Your task to perform on an android device: Clear the shopping cart on newegg. Add "dell alienware" to the cart on newegg, then select checkout. Image 0: 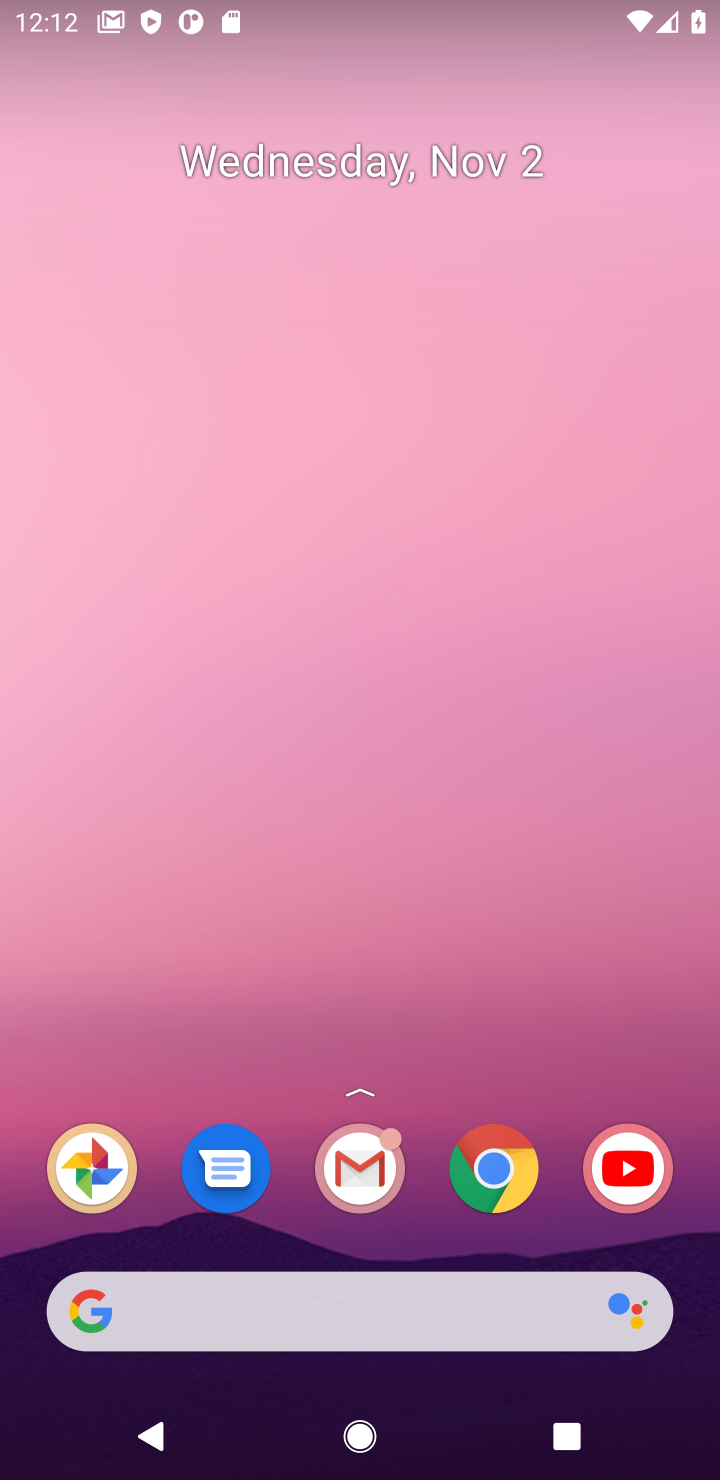
Step 0: click (496, 1162)
Your task to perform on an android device: Clear the shopping cart on newegg. Add "dell alienware" to the cart on newegg, then select checkout. Image 1: 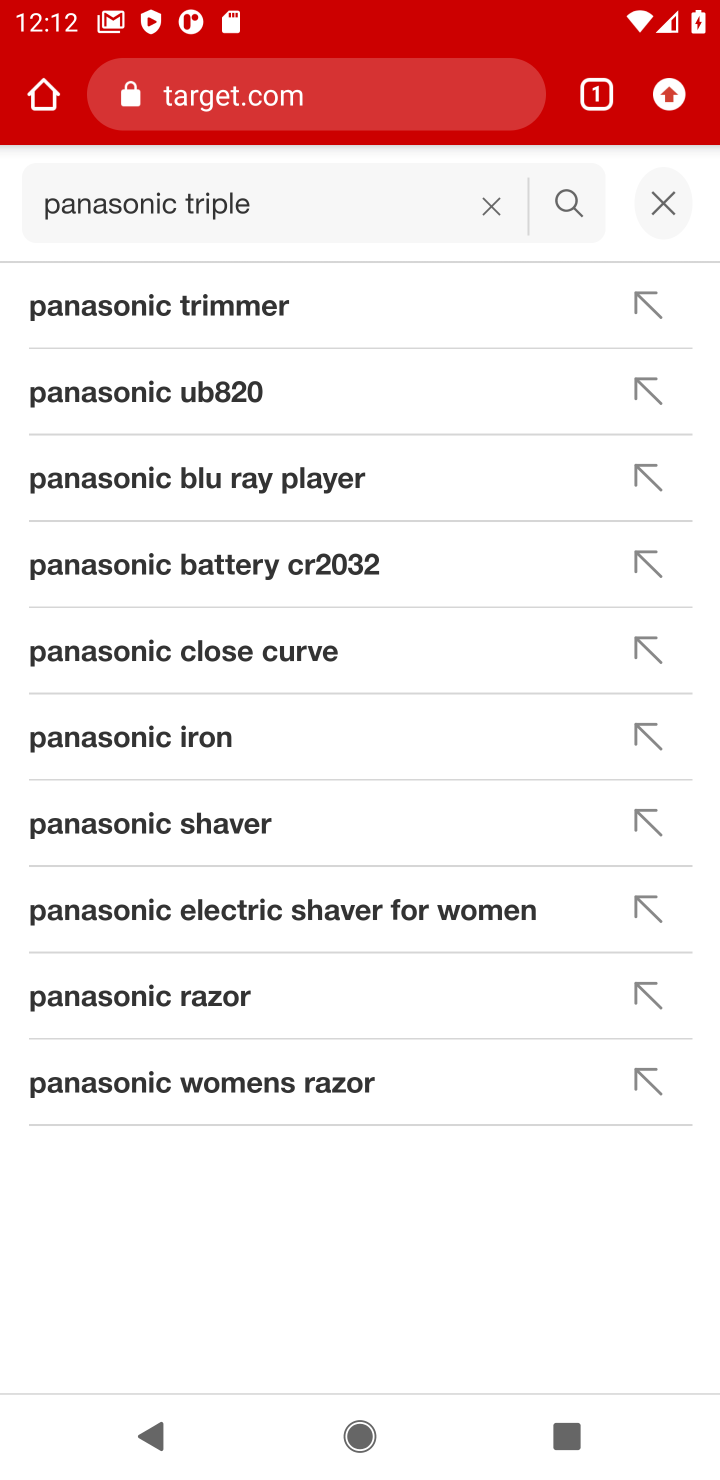
Step 1: click (364, 101)
Your task to perform on an android device: Clear the shopping cart on newegg. Add "dell alienware" to the cart on newegg, then select checkout. Image 2: 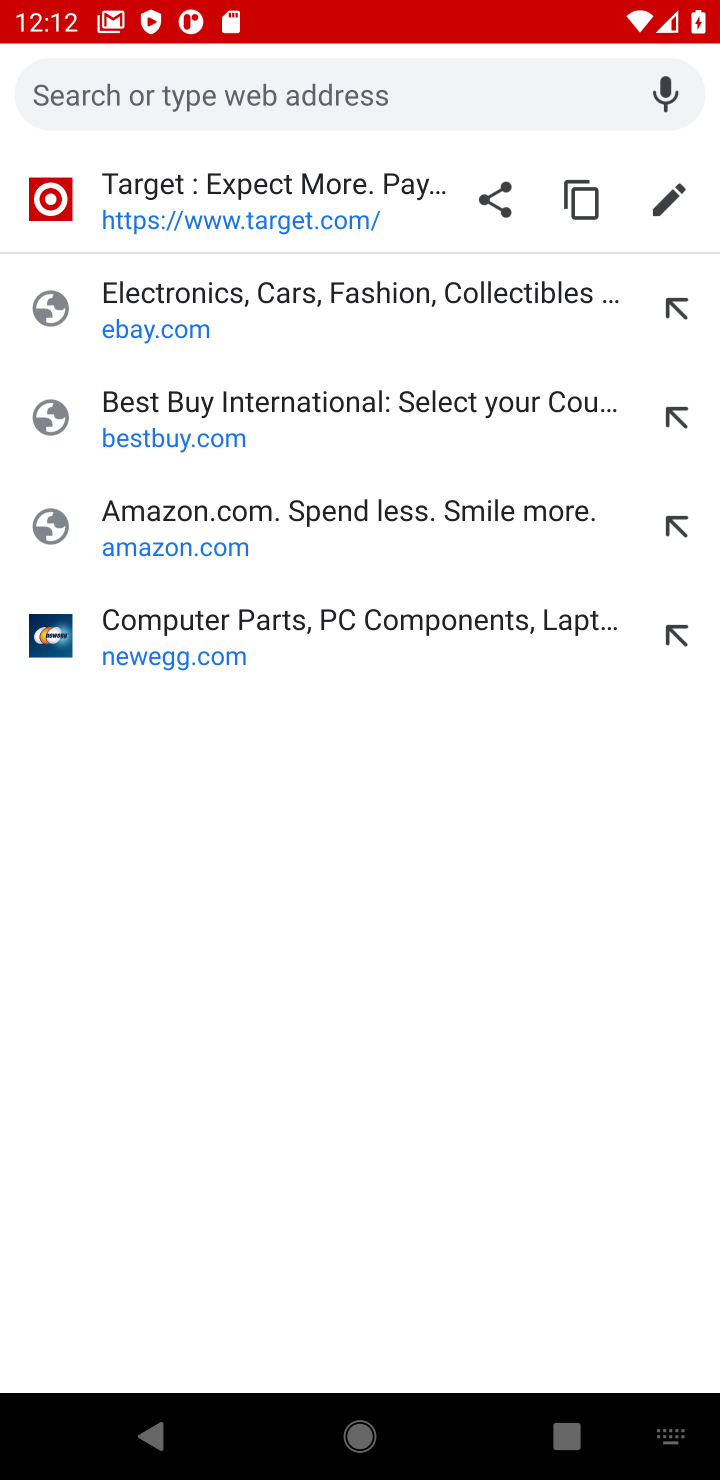
Step 2: press enter
Your task to perform on an android device: Clear the shopping cart on newegg. Add "dell alienware" to the cart on newegg, then select checkout. Image 3: 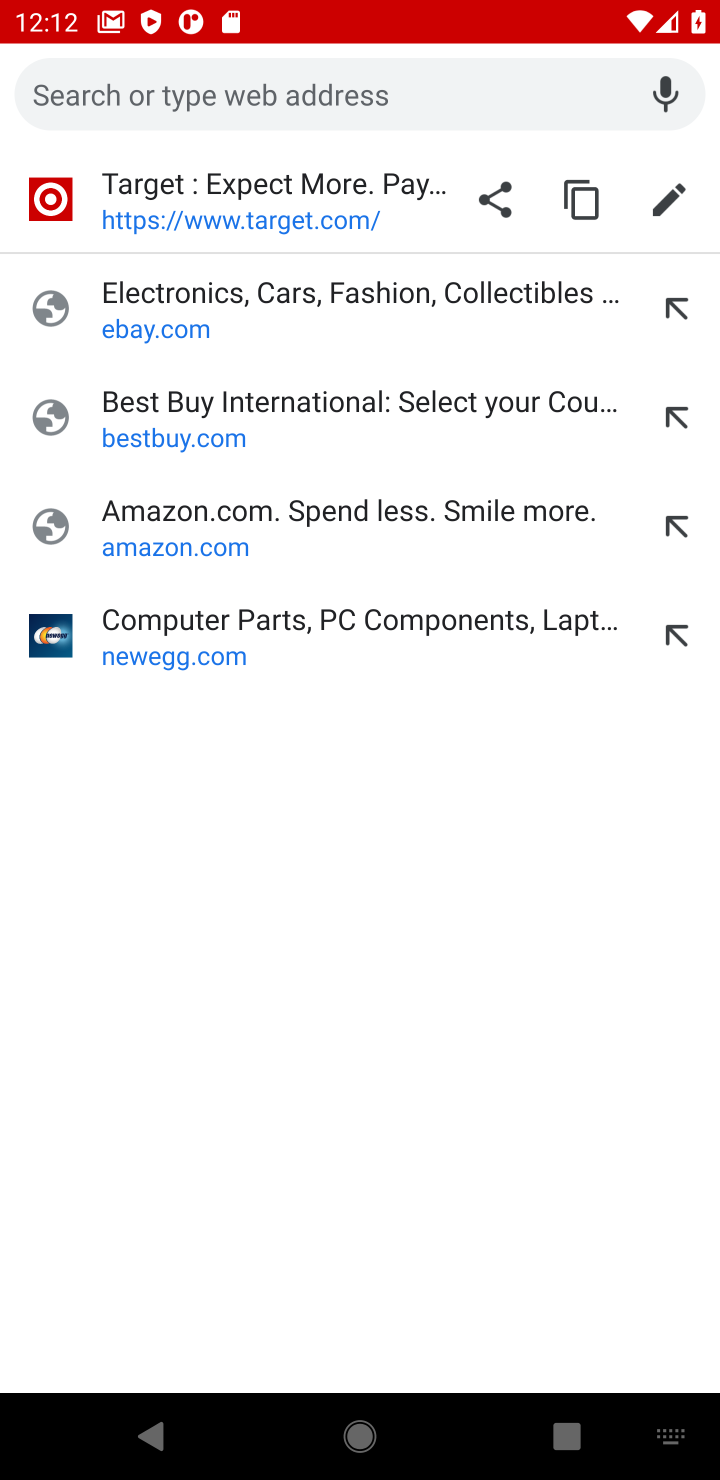
Step 3: type "newegg"
Your task to perform on an android device: Clear the shopping cart on newegg. Add "dell alienware" to the cart on newegg, then select checkout. Image 4: 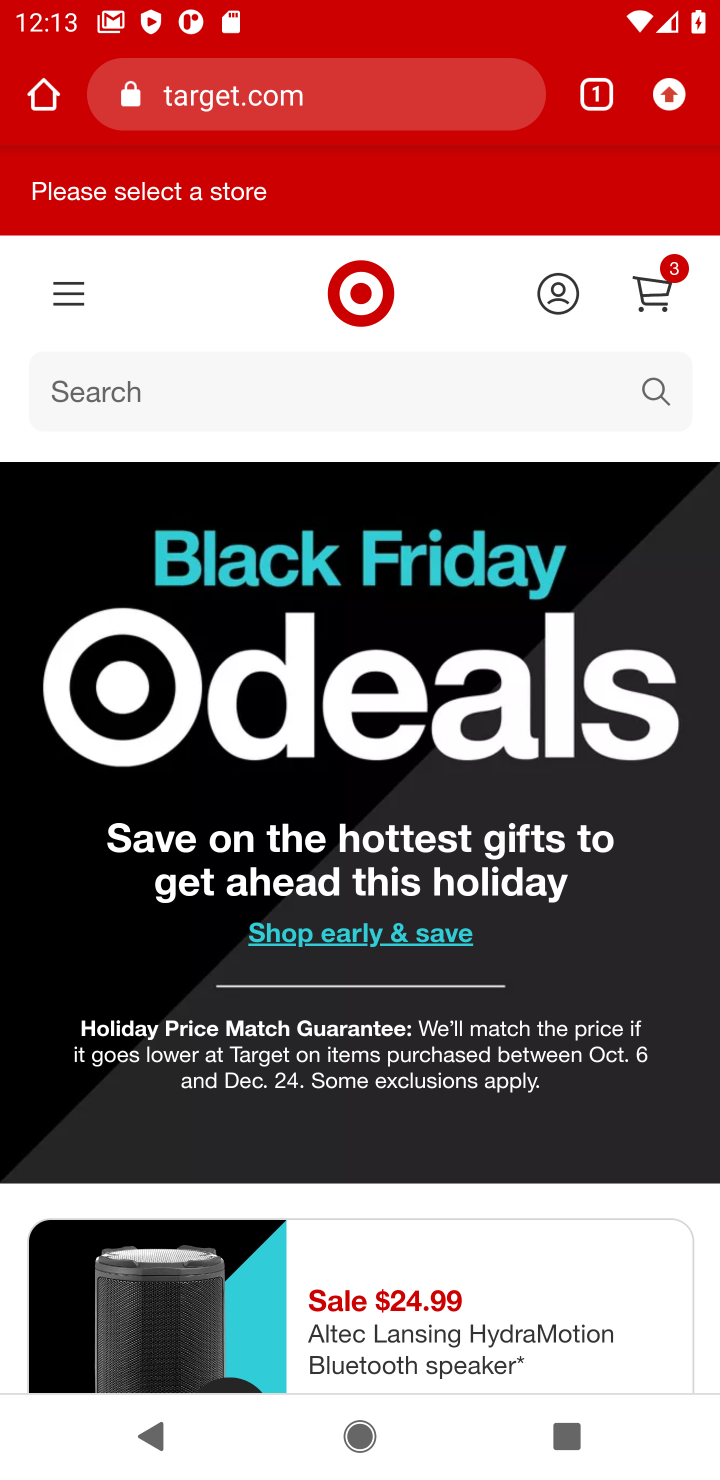
Step 4: click (372, 92)
Your task to perform on an android device: Clear the shopping cart on newegg. Add "dell alienware" to the cart on newegg, then select checkout. Image 5: 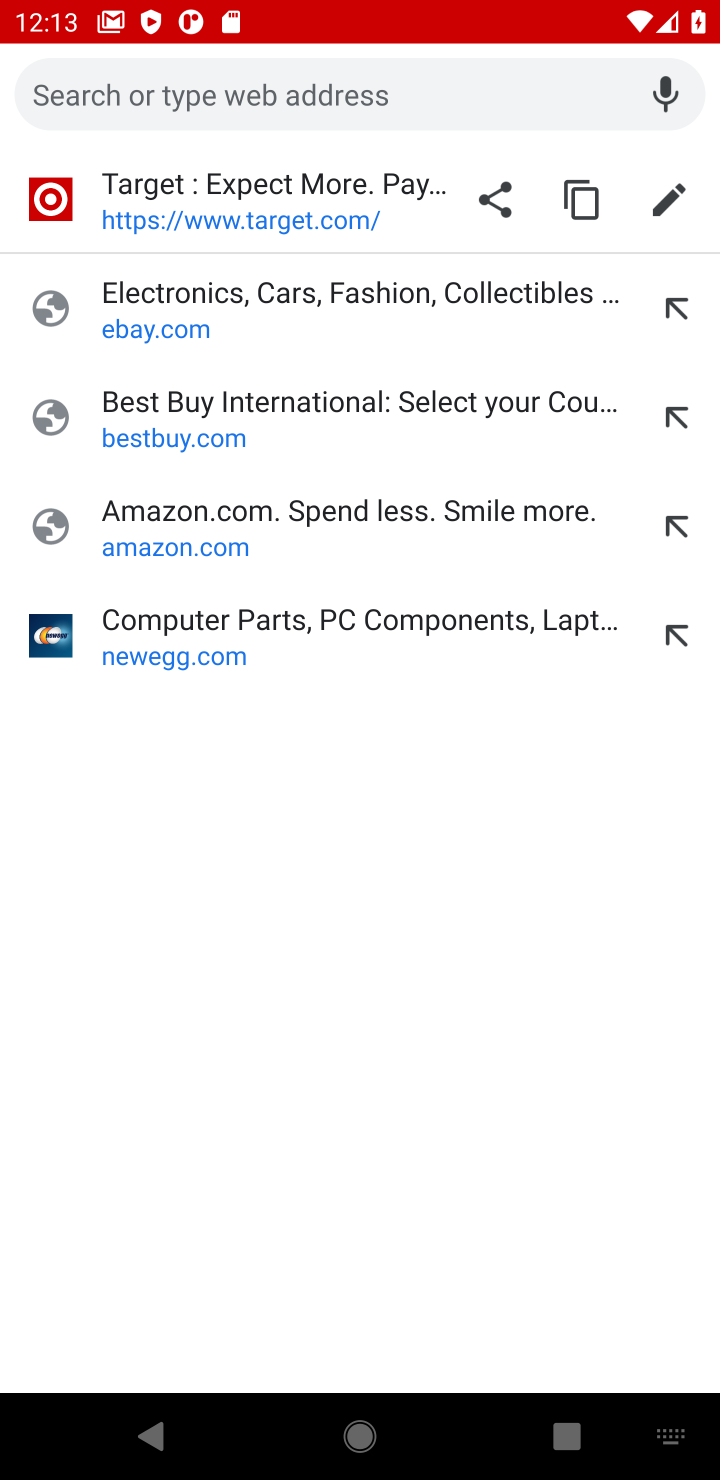
Step 5: press enter
Your task to perform on an android device: Clear the shopping cart on newegg. Add "dell alienware" to the cart on newegg, then select checkout. Image 6: 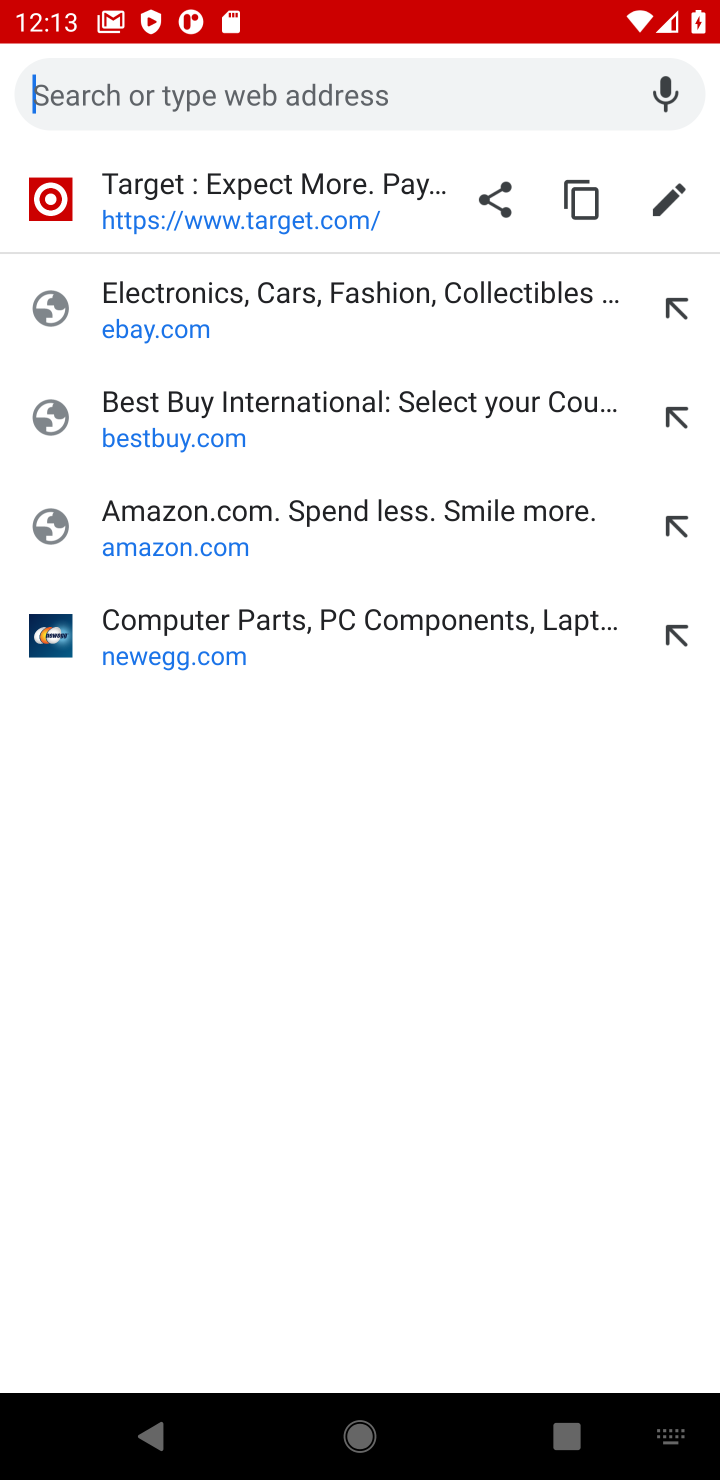
Step 6: type "newegg"
Your task to perform on an android device: Clear the shopping cart on newegg. Add "dell alienware" to the cart on newegg, then select checkout. Image 7: 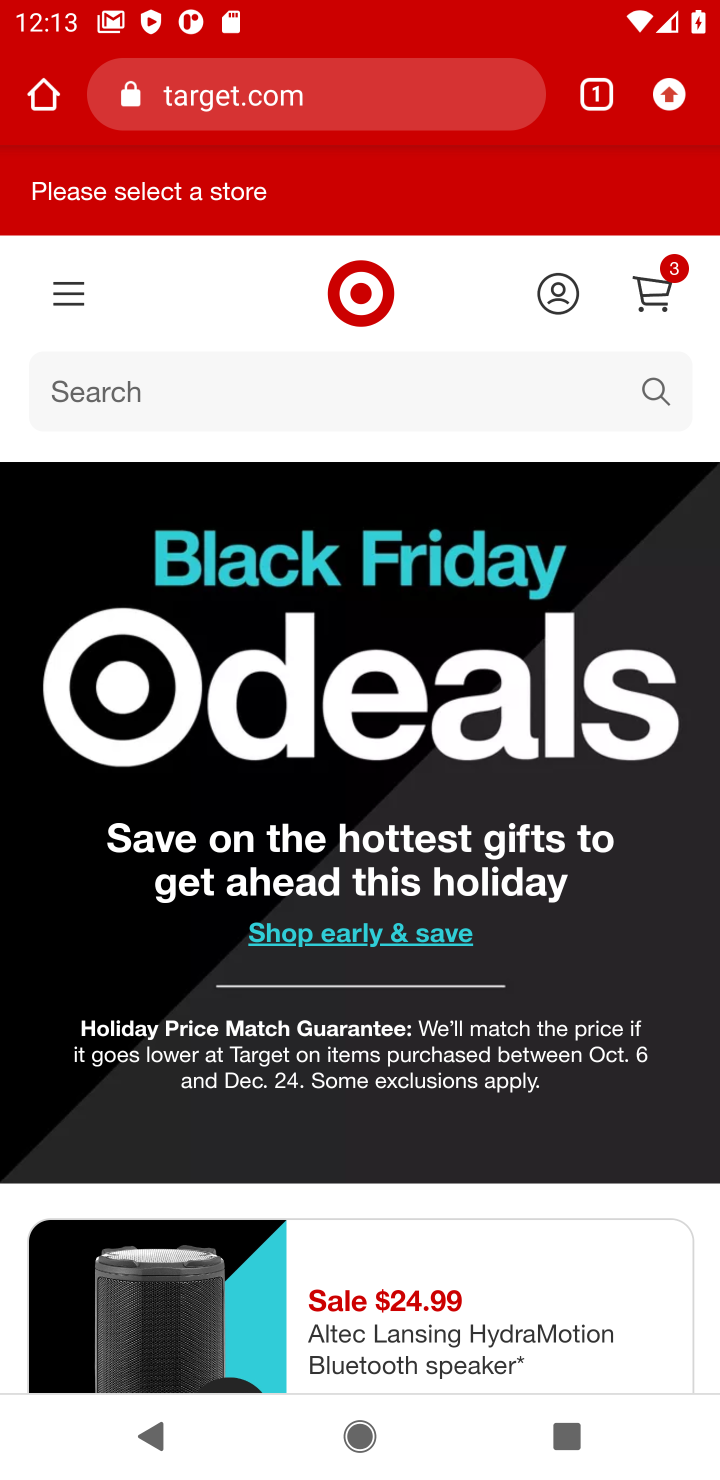
Step 7: click (38, 100)
Your task to perform on an android device: Clear the shopping cart on newegg. Add "dell alienware" to the cart on newegg, then select checkout. Image 8: 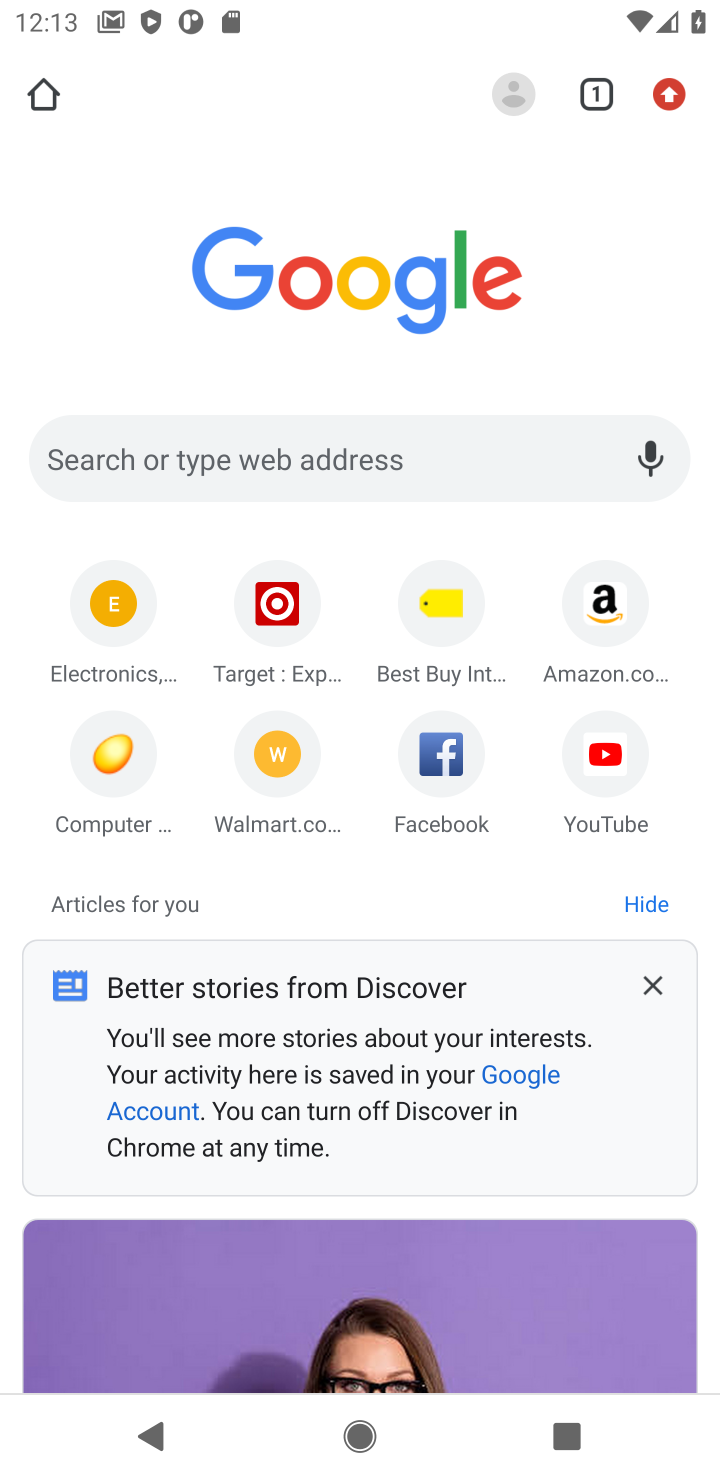
Step 8: click (377, 444)
Your task to perform on an android device: Clear the shopping cart on newegg. Add "dell alienware" to the cart on newegg, then select checkout. Image 9: 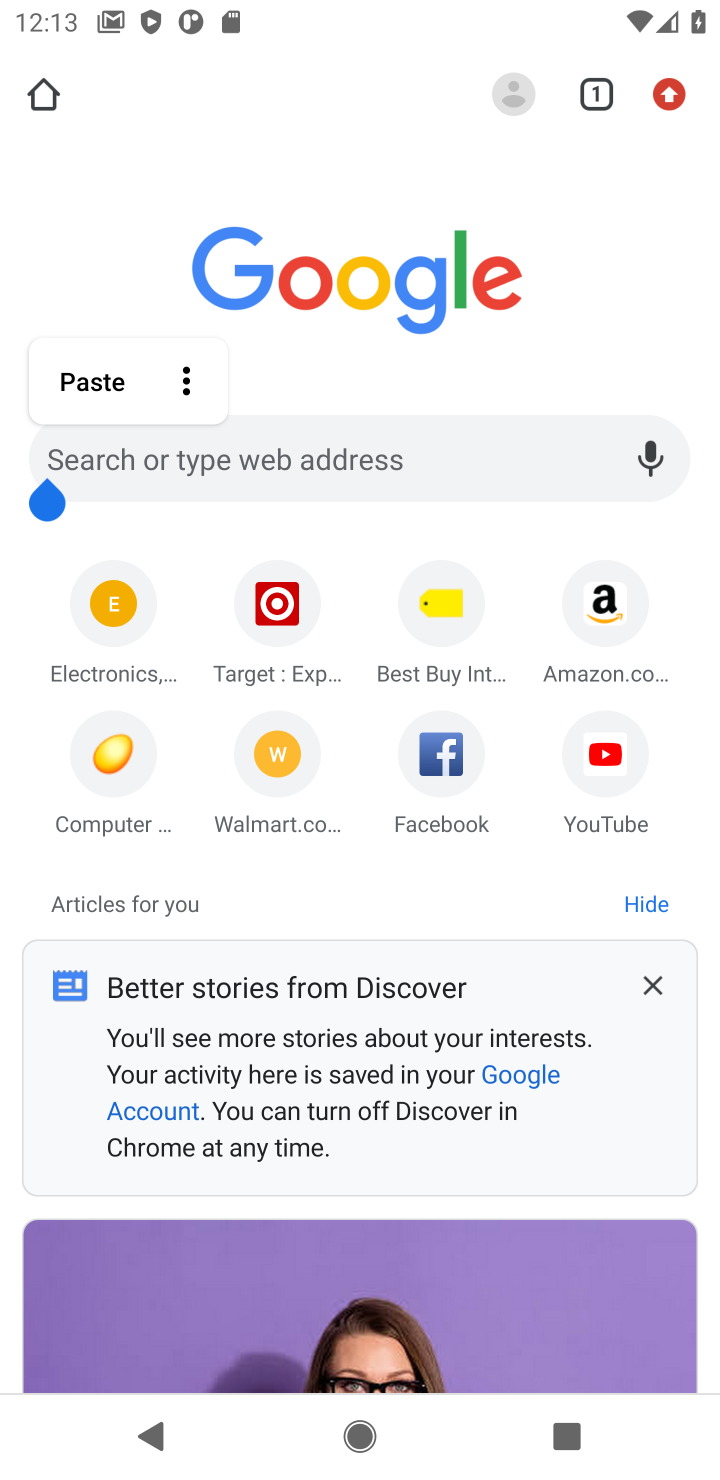
Step 9: click (443, 464)
Your task to perform on an android device: Clear the shopping cart on newegg. Add "dell alienware" to the cart on newegg, then select checkout. Image 10: 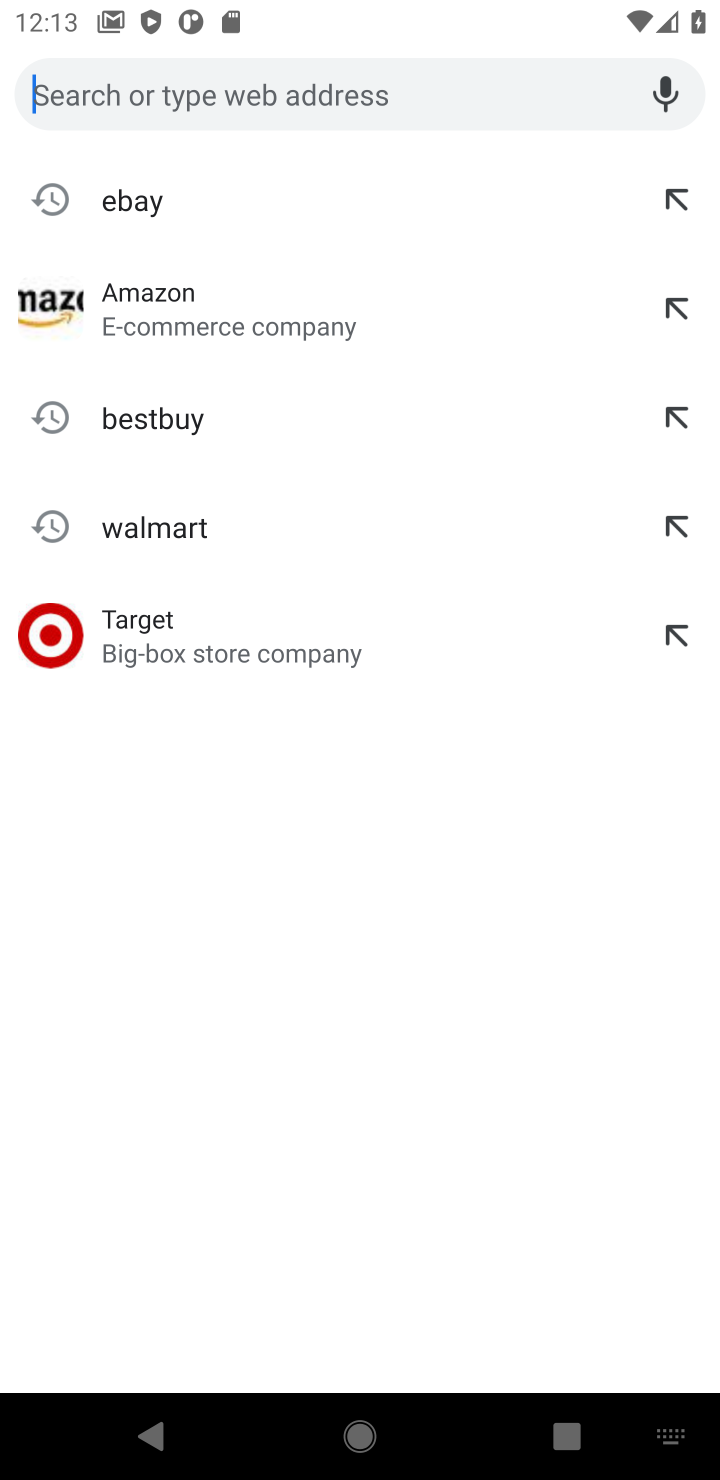
Step 10: type "newegg"
Your task to perform on an android device: Clear the shopping cart on newegg. Add "dell alienware" to the cart on newegg, then select checkout. Image 11: 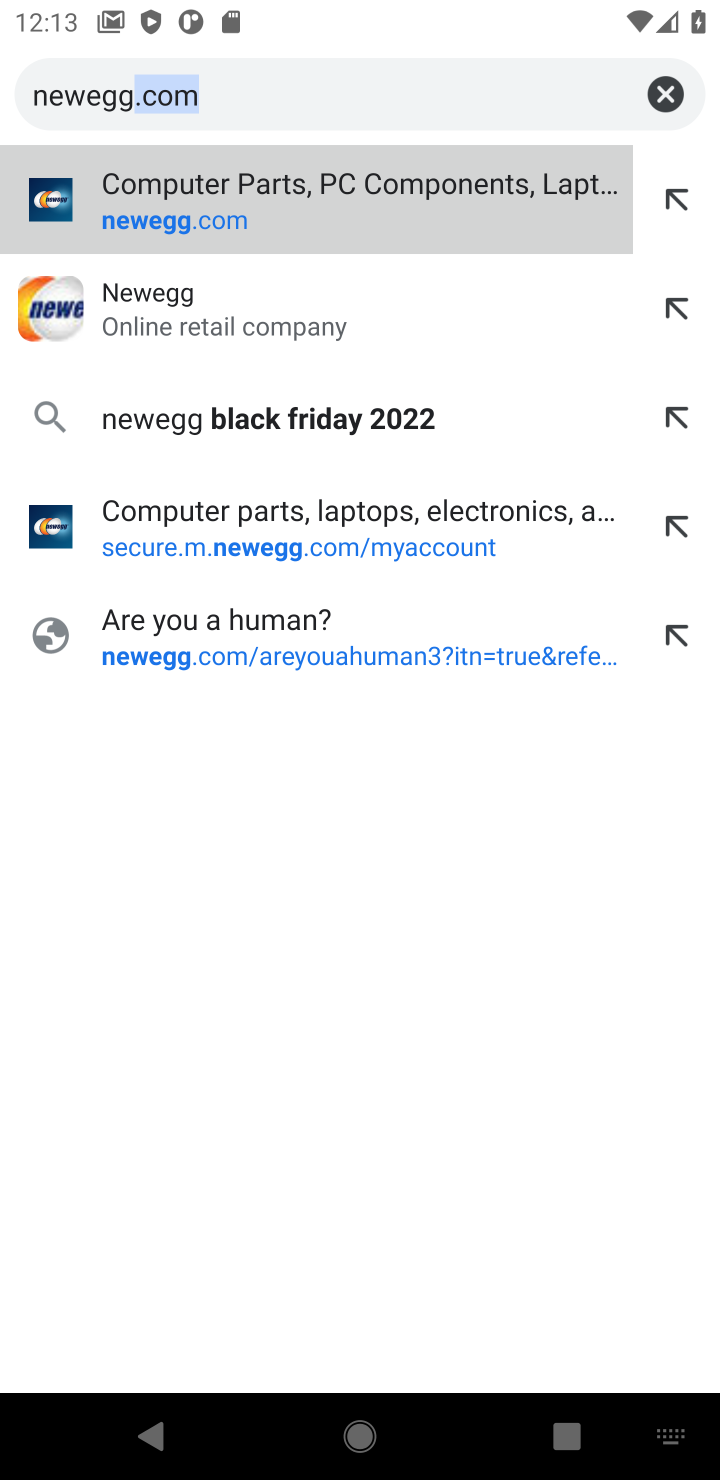
Step 11: press enter
Your task to perform on an android device: Clear the shopping cart on newegg. Add "dell alienware" to the cart on newegg, then select checkout. Image 12: 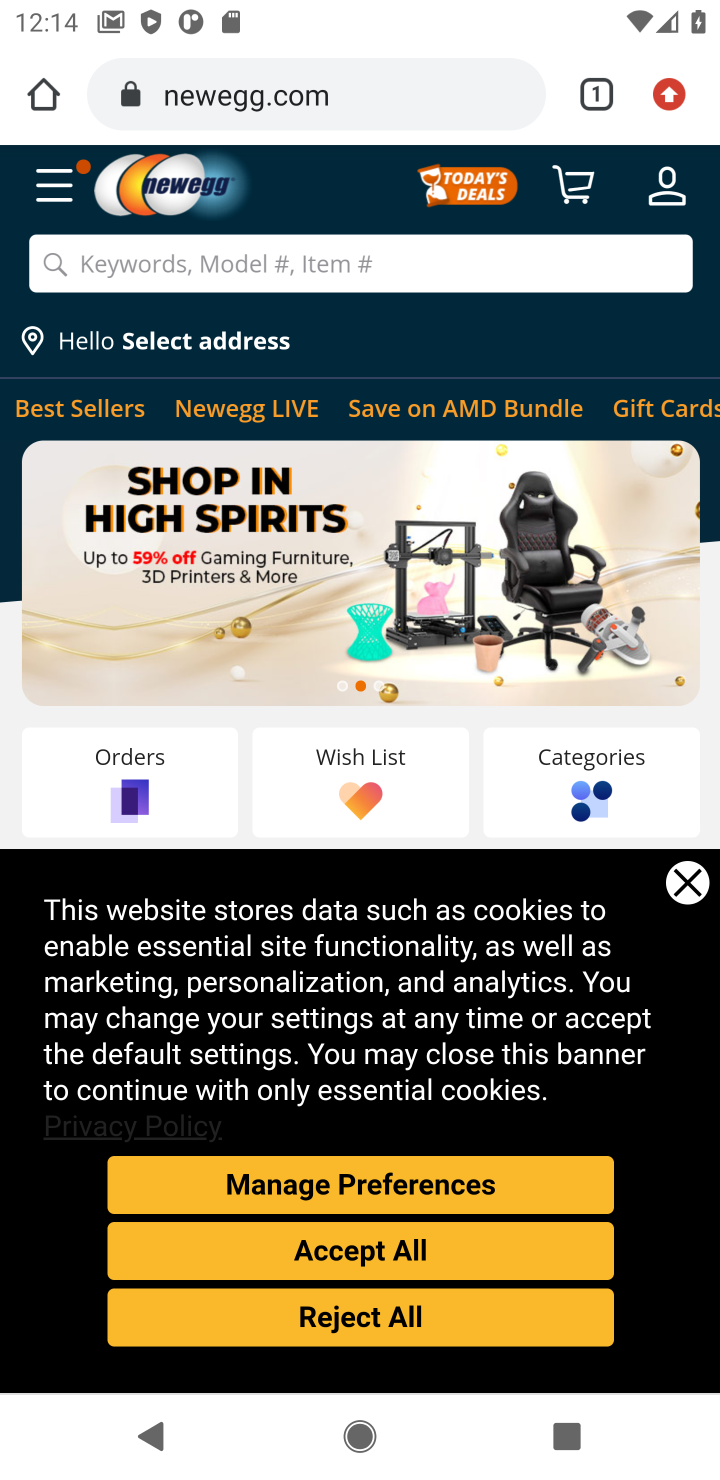
Step 12: click (339, 261)
Your task to perform on an android device: Clear the shopping cart on newegg. Add "dell alienware" to the cart on newegg, then select checkout. Image 13: 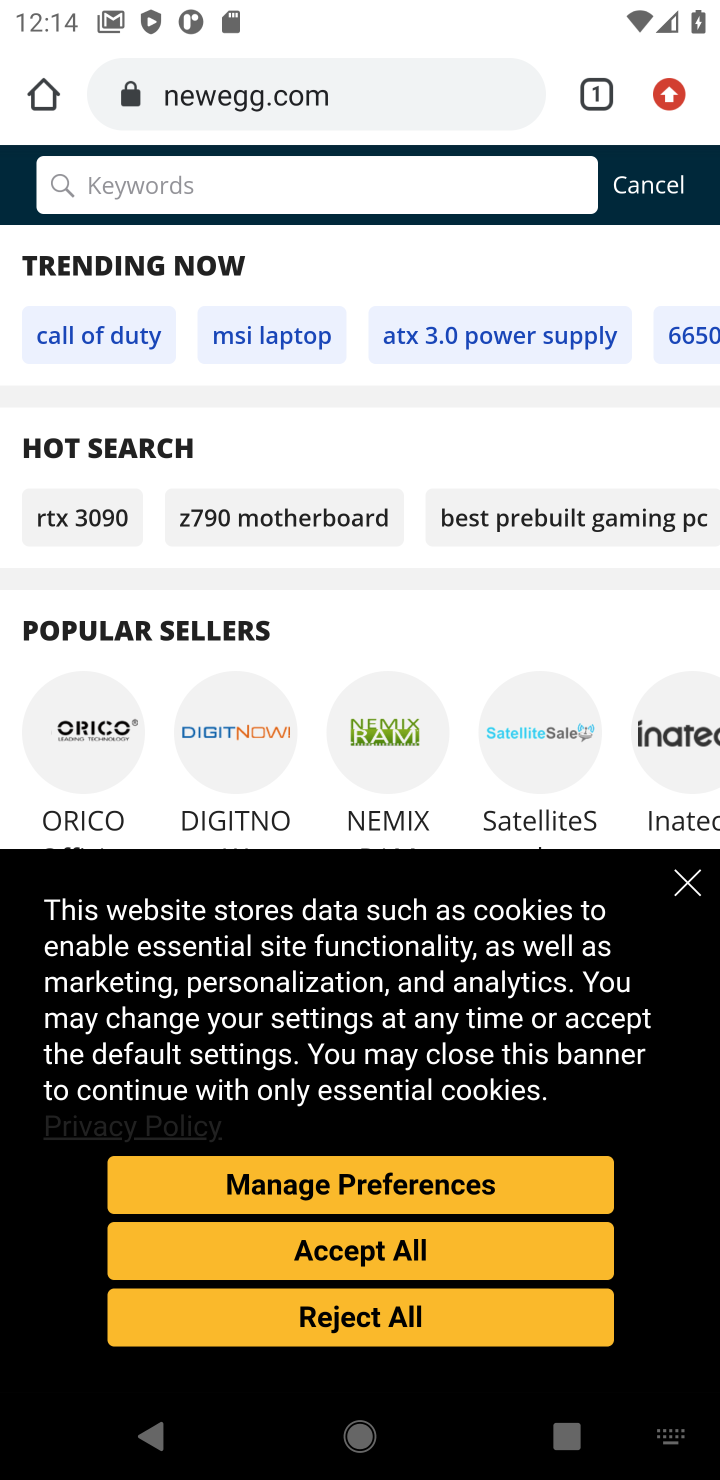
Step 13: type "dell alienware"
Your task to perform on an android device: Clear the shopping cart on newegg. Add "dell alienware" to the cart on newegg, then select checkout. Image 14: 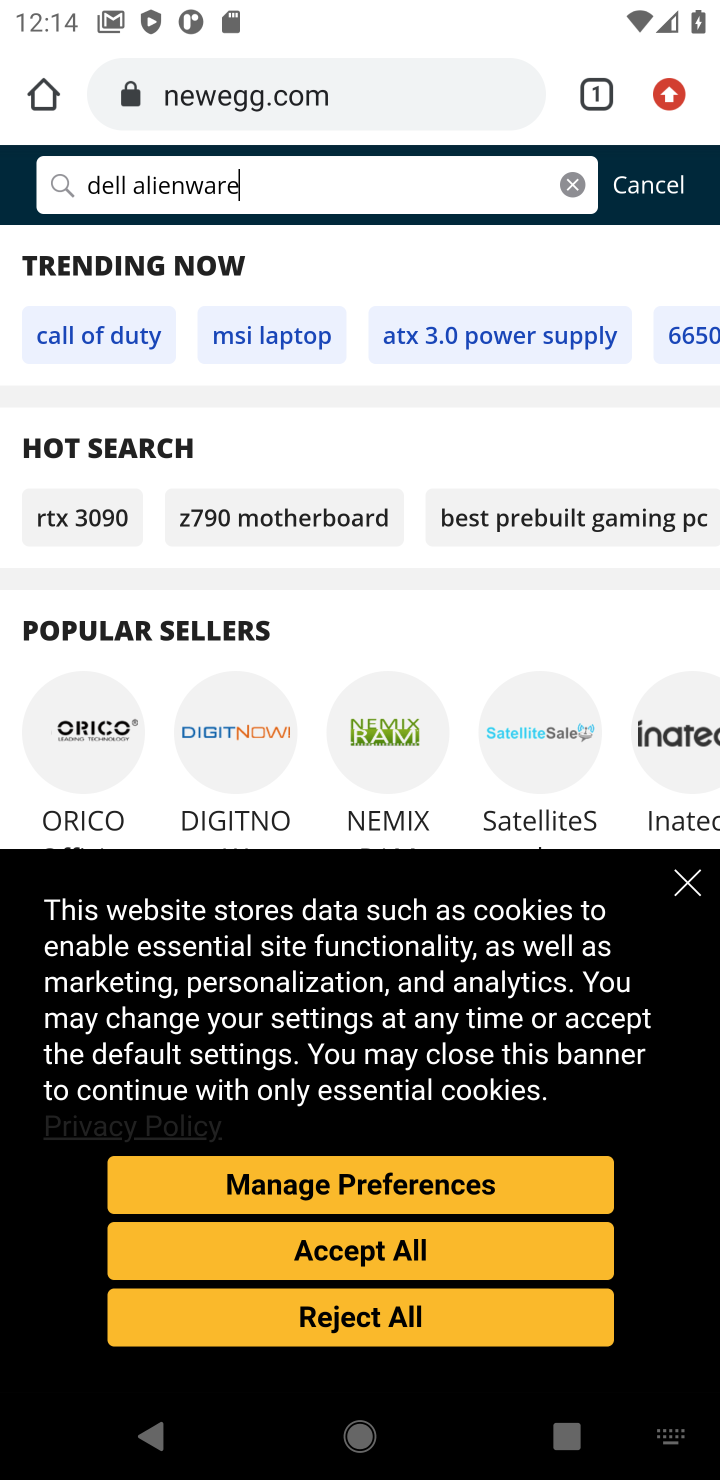
Step 14: press enter
Your task to perform on an android device: Clear the shopping cart on newegg. Add "dell alienware" to the cart on newegg, then select checkout. Image 15: 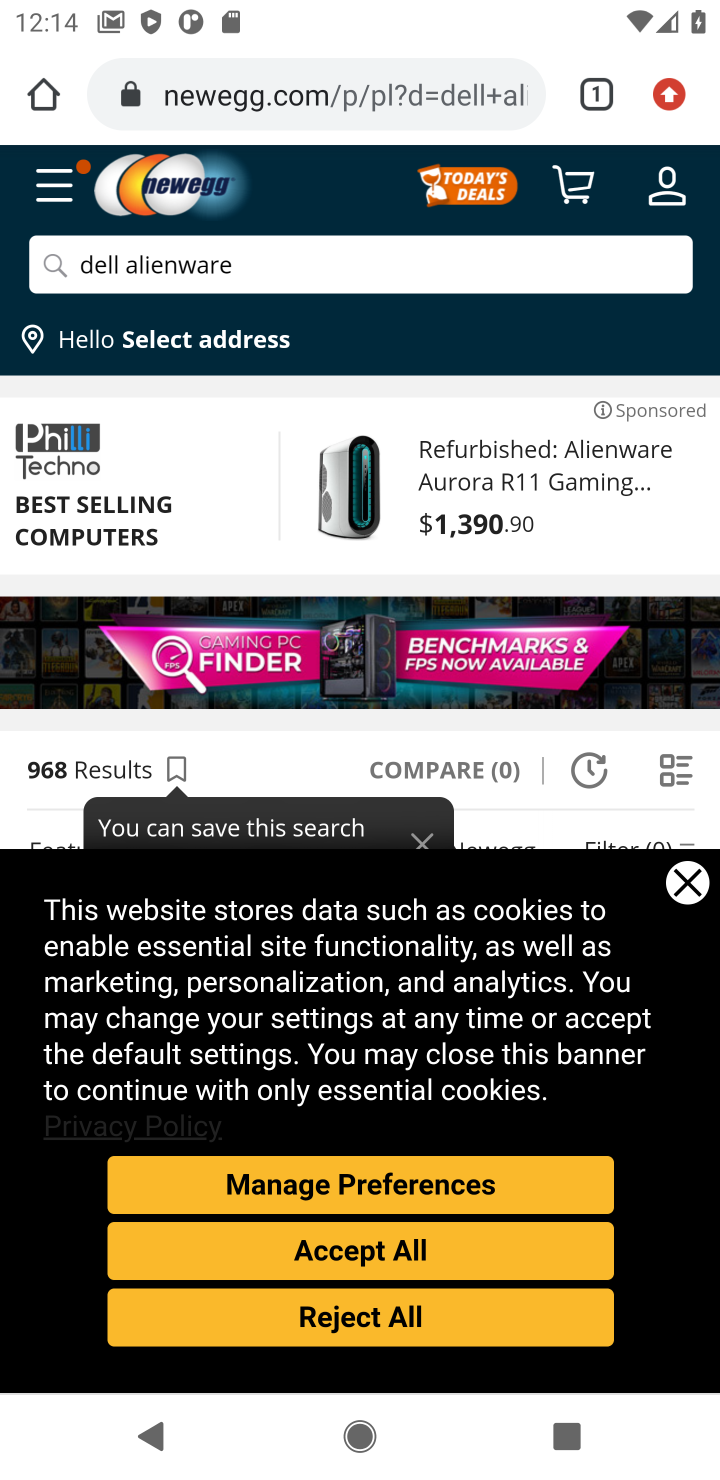
Step 15: click (407, 1235)
Your task to perform on an android device: Clear the shopping cart on newegg. Add "dell alienware" to the cart on newegg, then select checkout. Image 16: 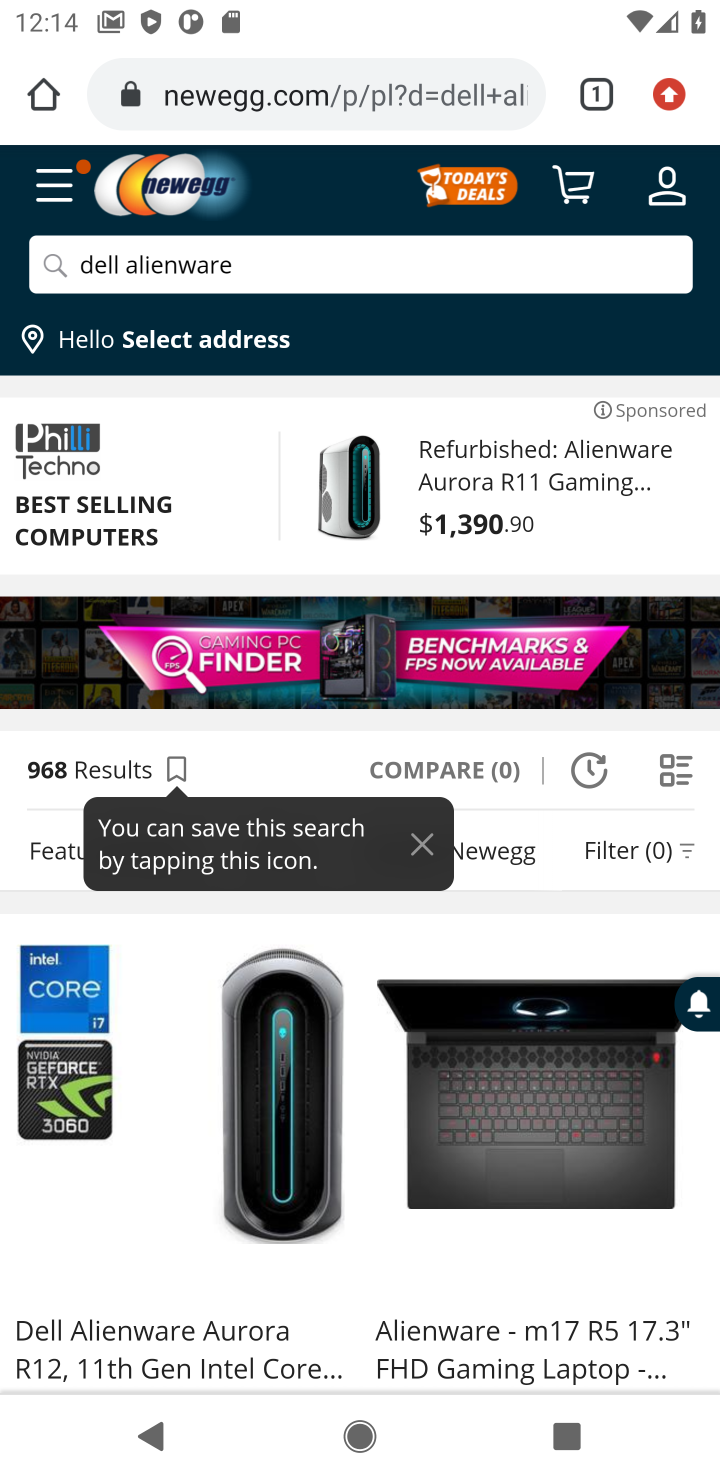
Step 16: click (102, 1181)
Your task to perform on an android device: Clear the shopping cart on newegg. Add "dell alienware" to the cart on newegg, then select checkout. Image 17: 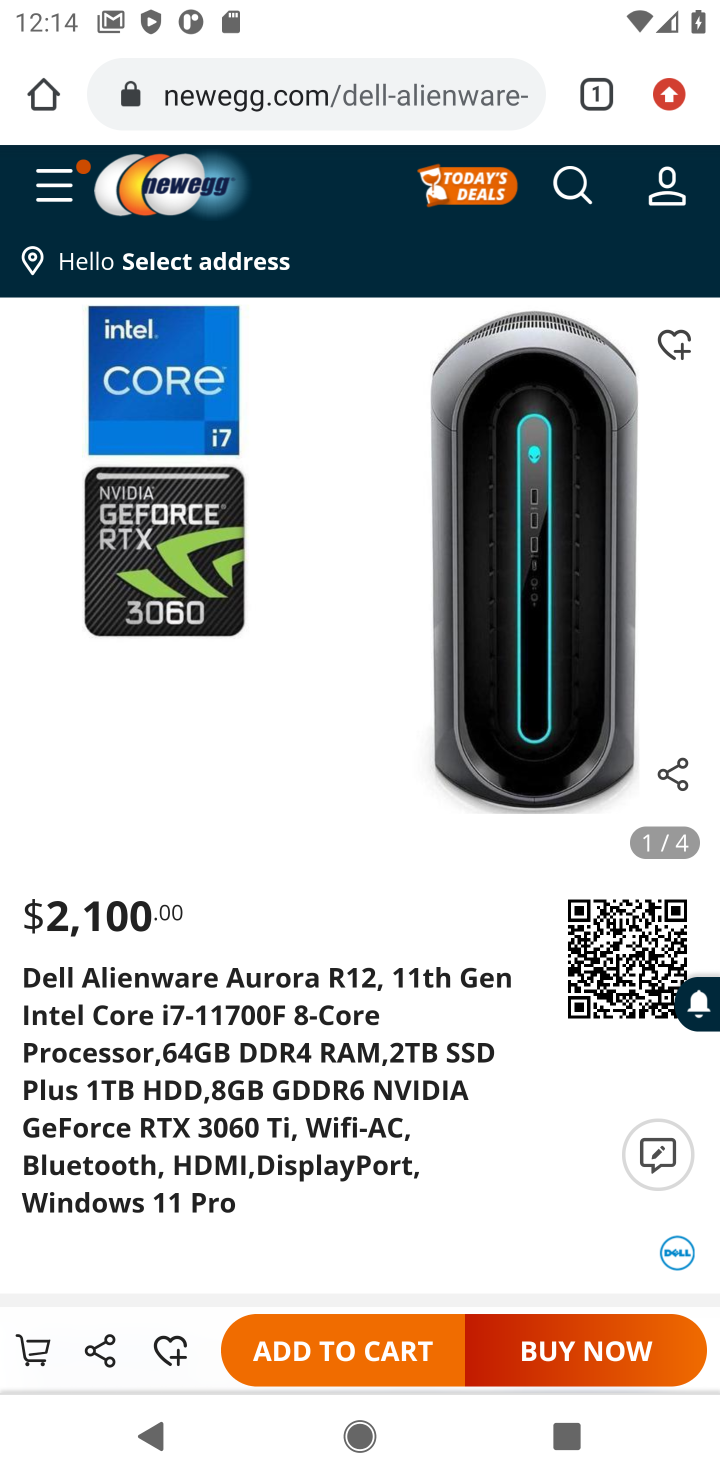
Step 17: drag from (417, 1070) to (407, 444)
Your task to perform on an android device: Clear the shopping cart on newegg. Add "dell alienware" to the cart on newegg, then select checkout. Image 18: 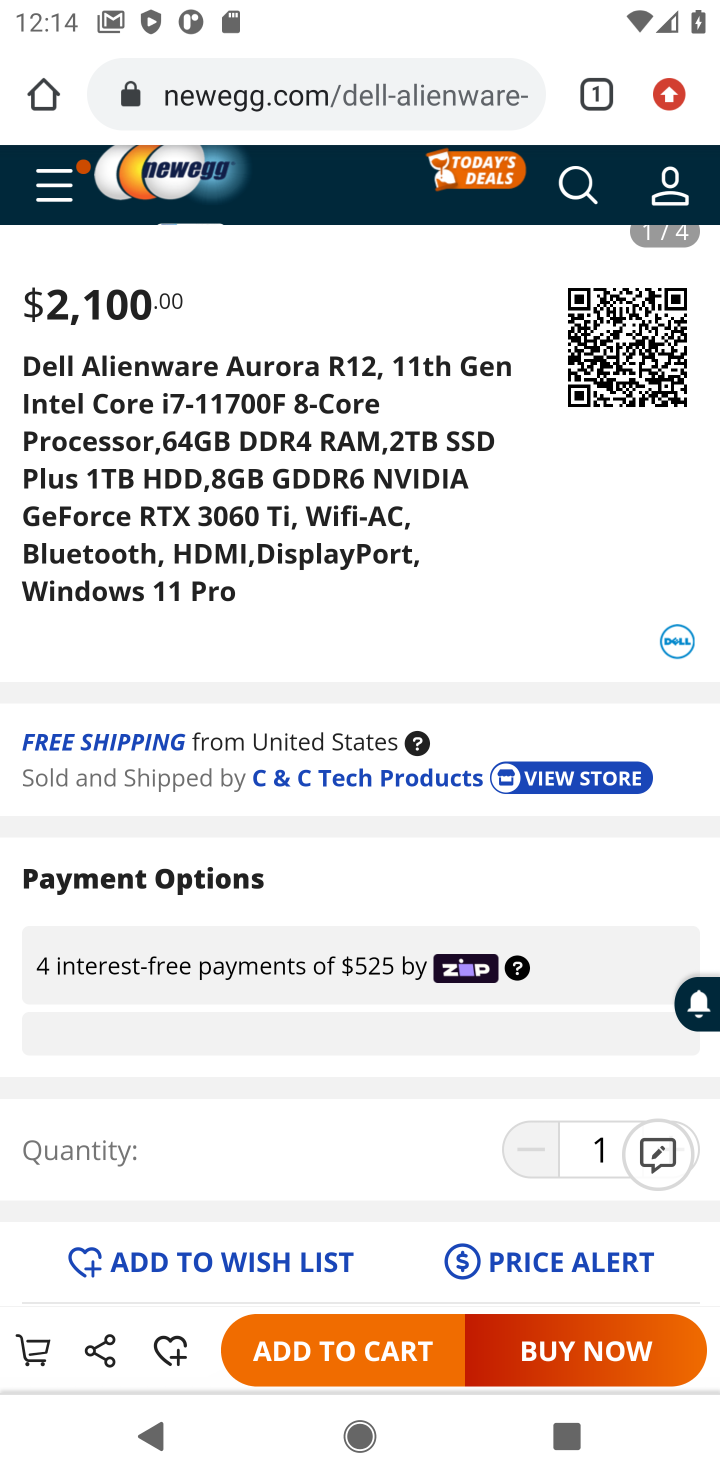
Step 18: click (310, 1342)
Your task to perform on an android device: Clear the shopping cart on newegg. Add "dell alienware" to the cart on newegg, then select checkout. Image 19: 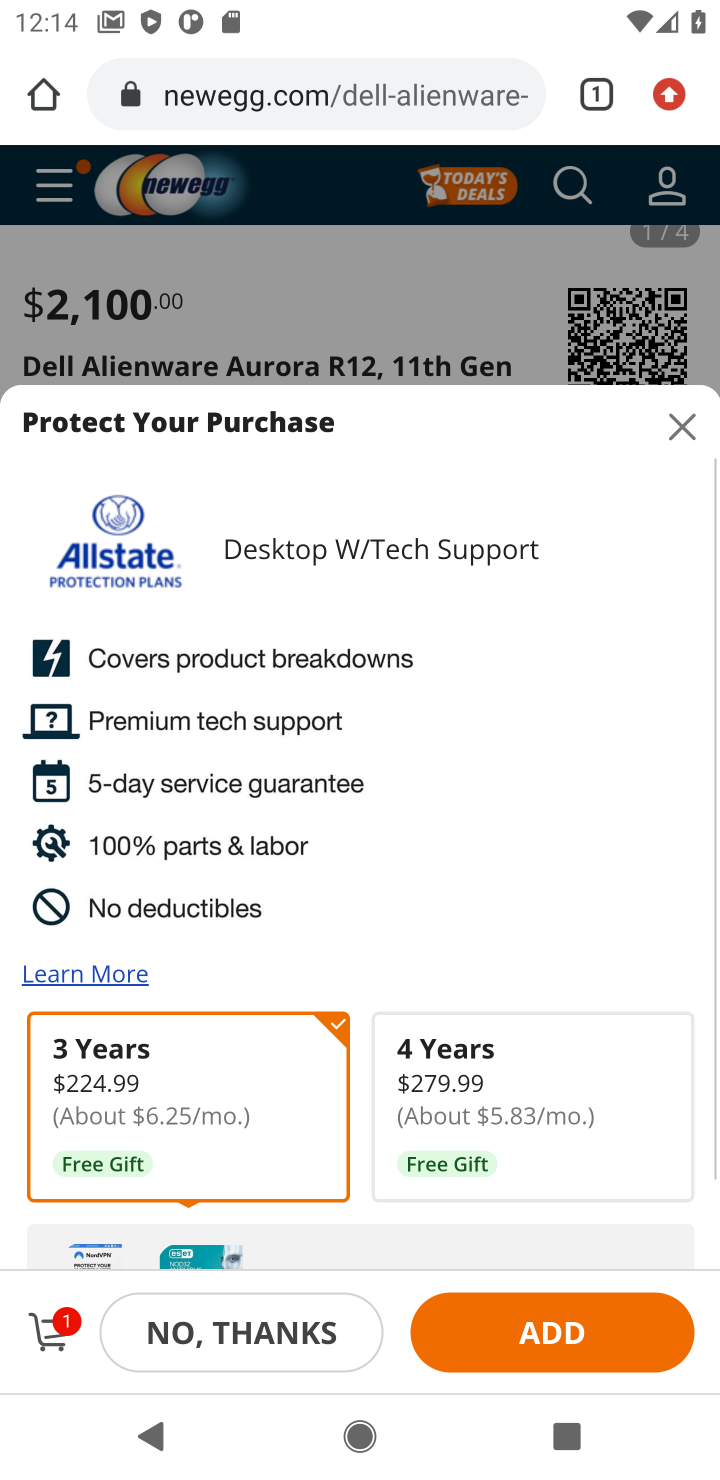
Step 19: click (674, 422)
Your task to perform on an android device: Clear the shopping cart on newegg. Add "dell alienware" to the cart on newegg, then select checkout. Image 20: 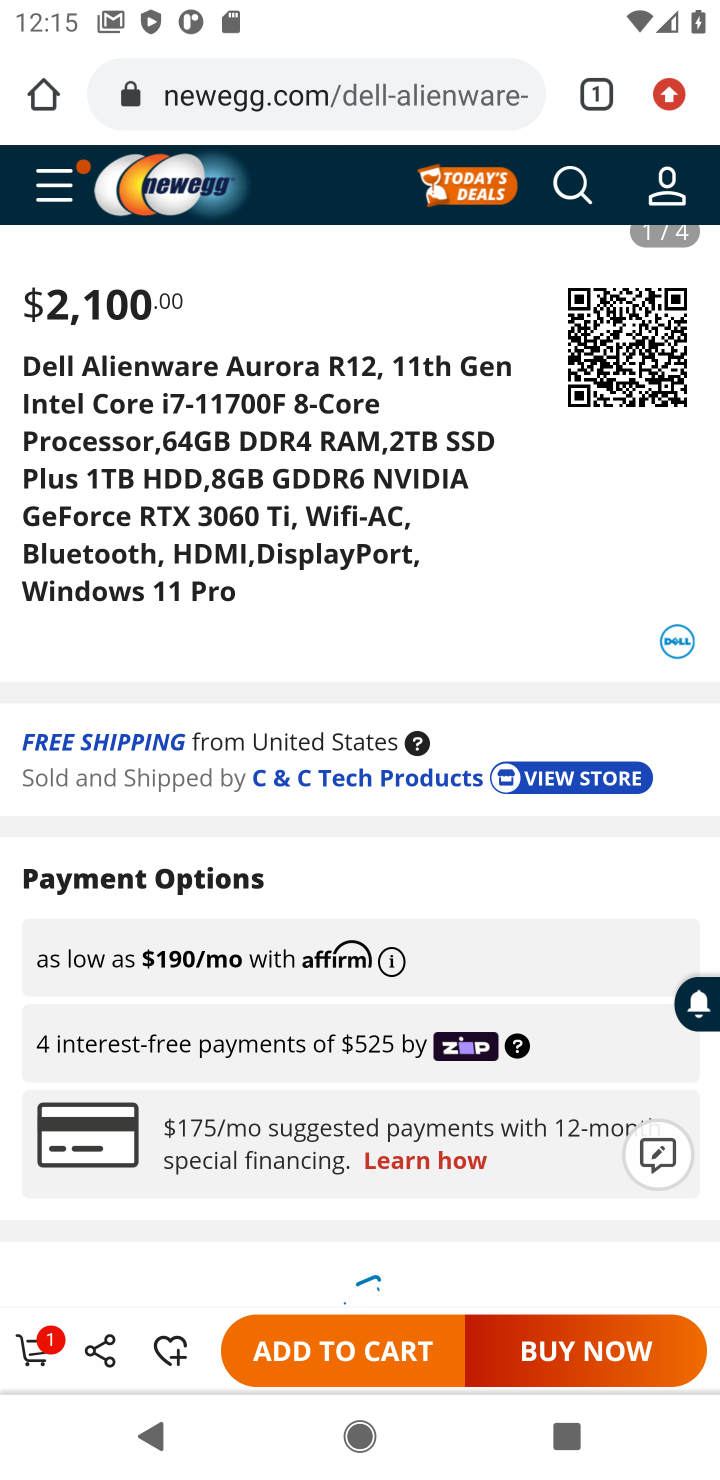
Step 20: drag from (469, 312) to (520, 970)
Your task to perform on an android device: Clear the shopping cart on newegg. Add "dell alienware" to the cart on newegg, then select checkout. Image 21: 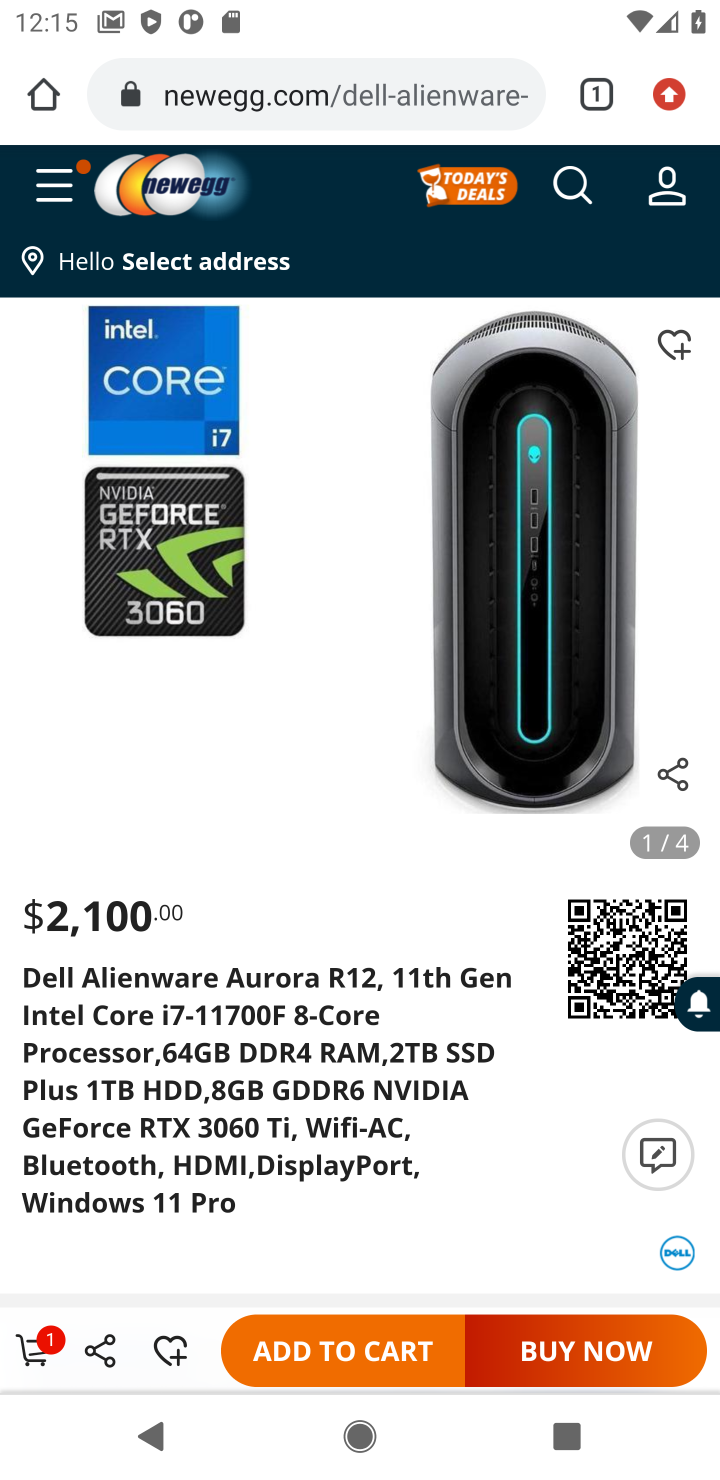
Step 21: click (667, 185)
Your task to perform on an android device: Clear the shopping cart on newegg. Add "dell alienware" to the cart on newegg, then select checkout. Image 22: 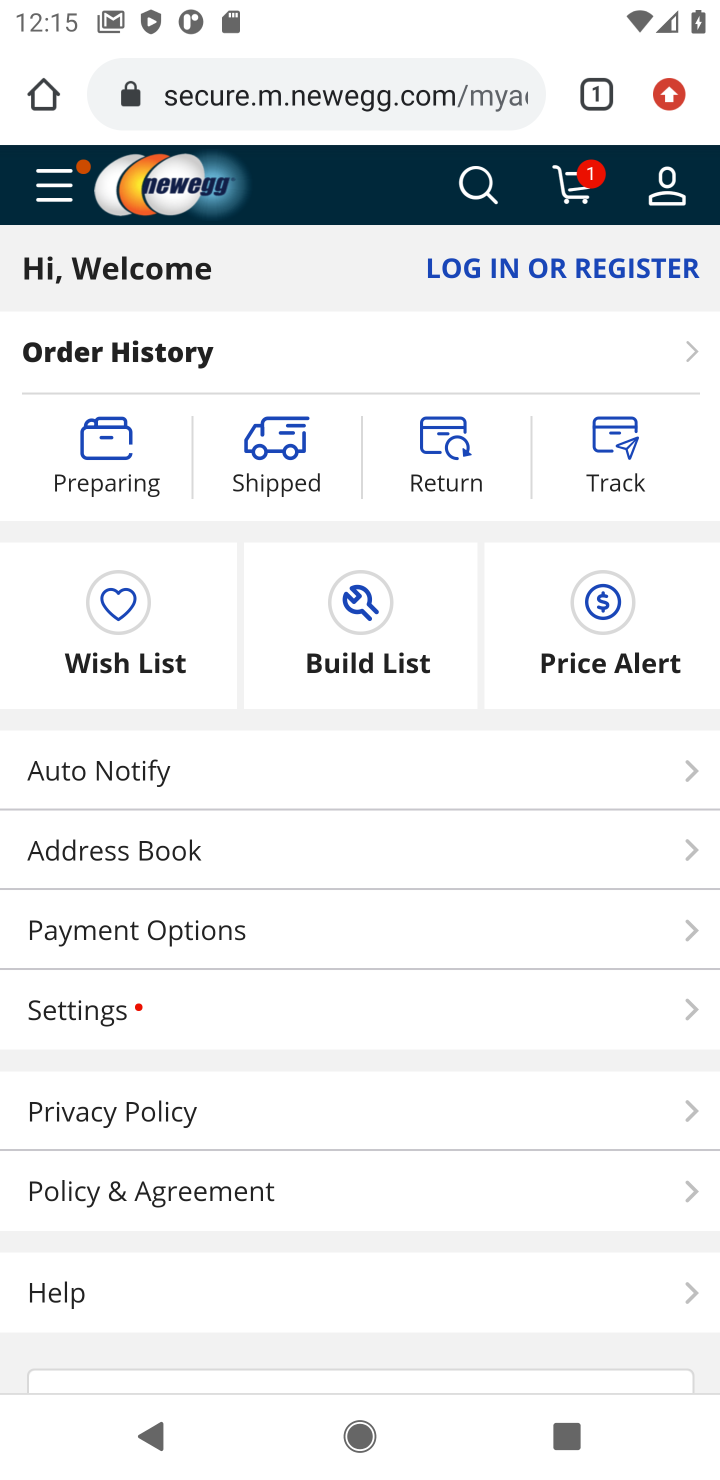
Step 22: click (578, 189)
Your task to perform on an android device: Clear the shopping cart on newegg. Add "dell alienware" to the cart on newegg, then select checkout. Image 23: 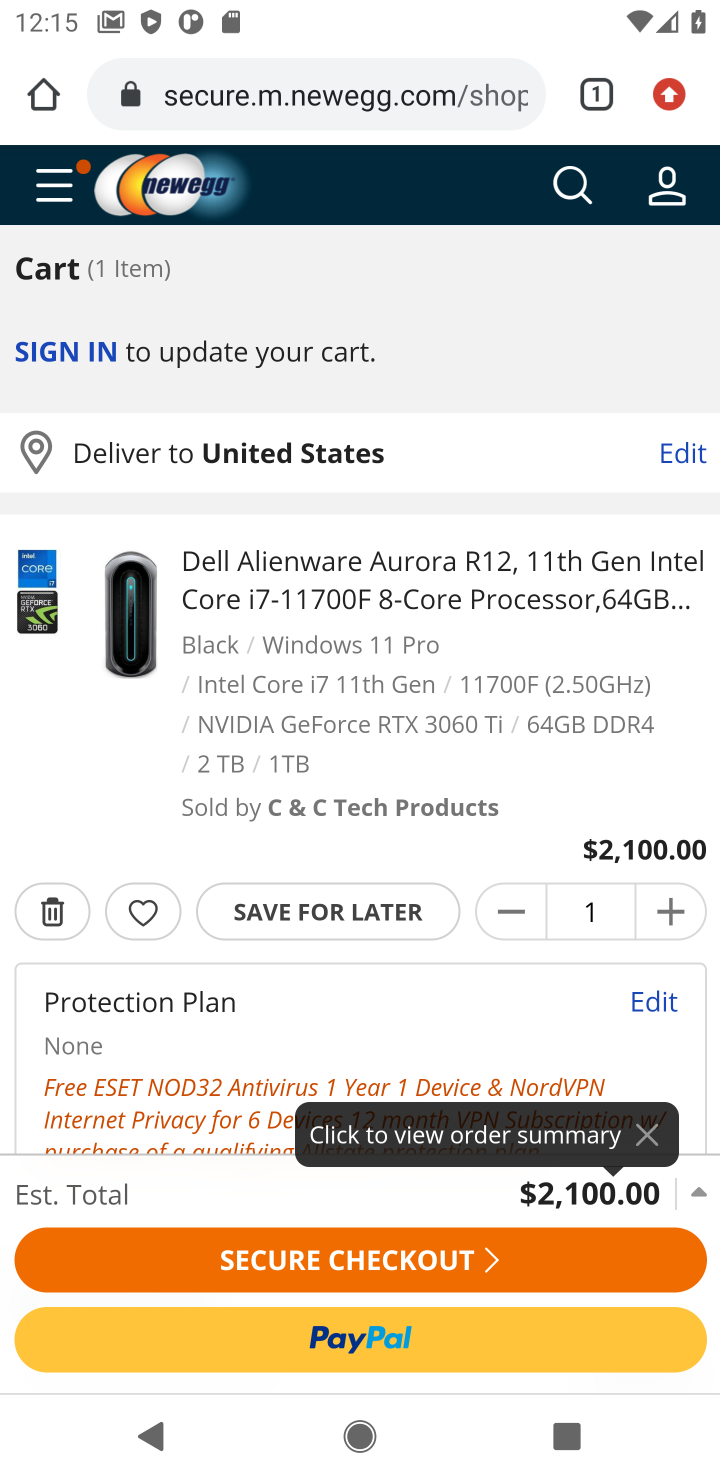
Step 23: click (400, 1256)
Your task to perform on an android device: Clear the shopping cart on newegg. Add "dell alienware" to the cart on newegg, then select checkout. Image 24: 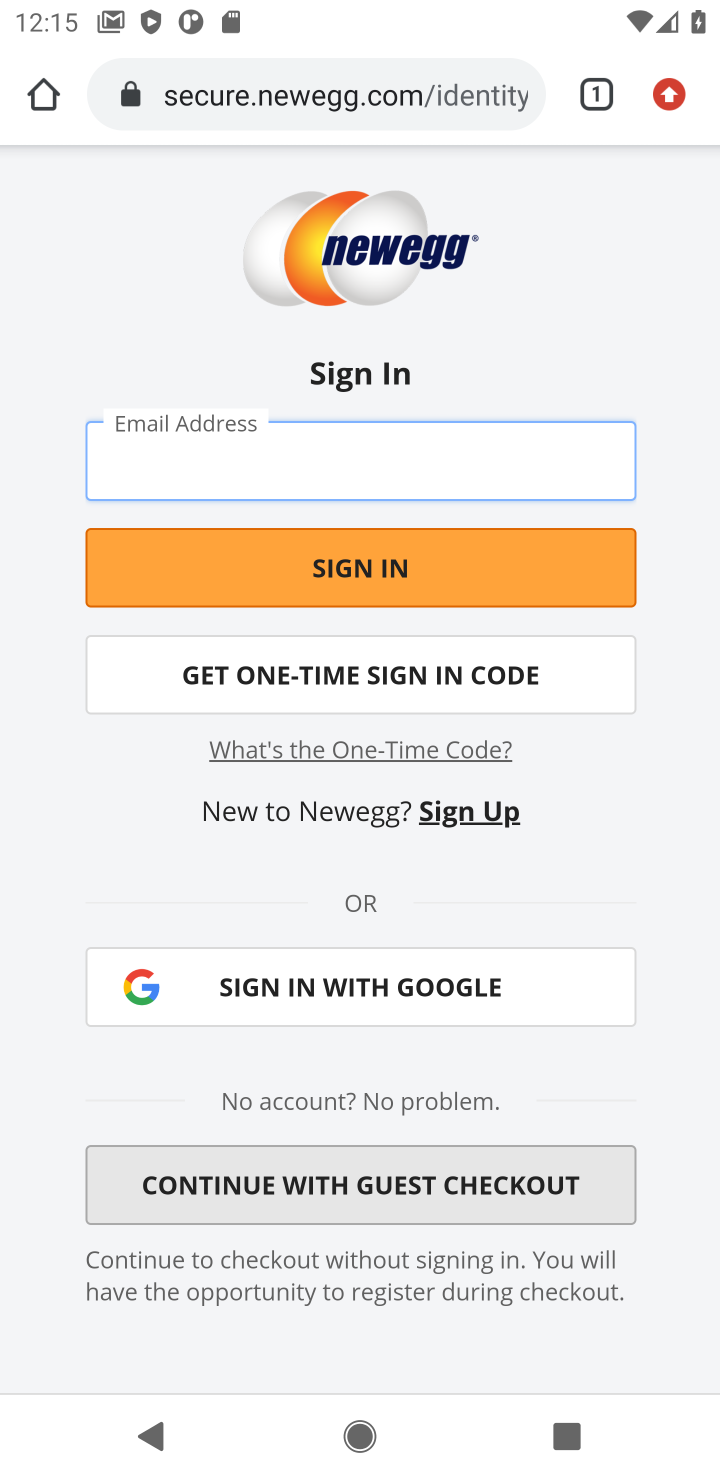
Step 24: task complete